Your task to perform on an android device: turn notification dots on Image 0: 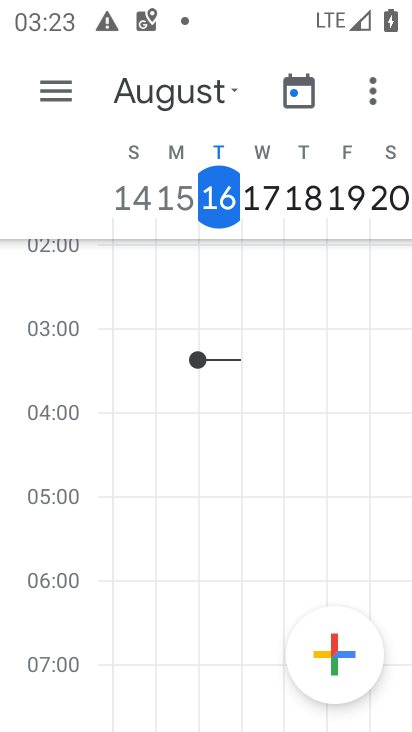
Step 0: press home button
Your task to perform on an android device: turn notification dots on Image 1: 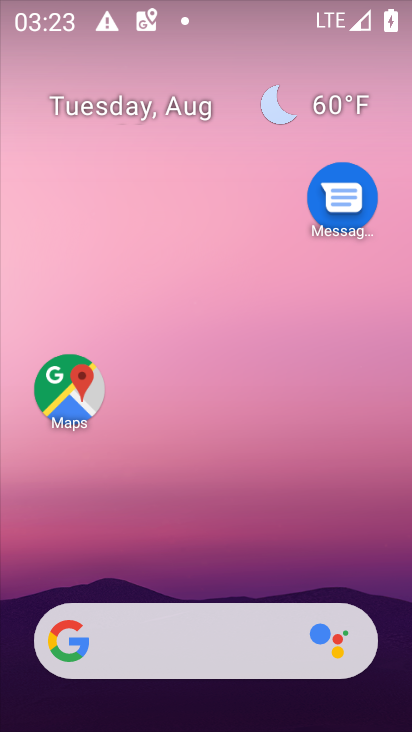
Step 1: click (72, 397)
Your task to perform on an android device: turn notification dots on Image 2: 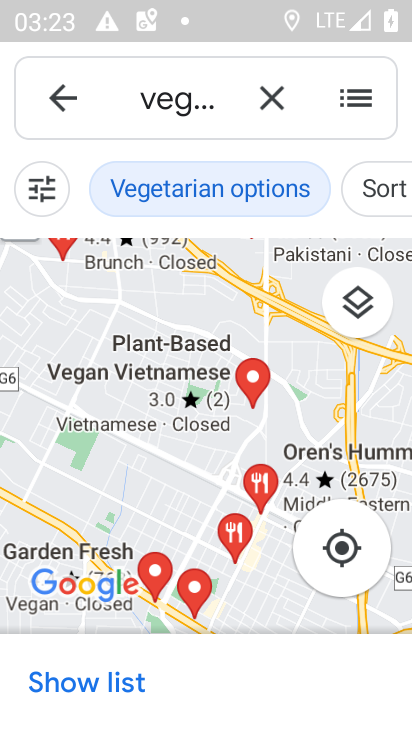
Step 2: press home button
Your task to perform on an android device: turn notification dots on Image 3: 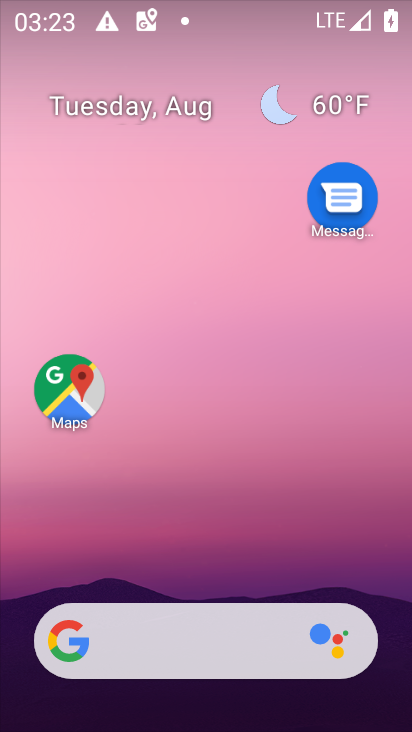
Step 3: drag from (169, 534) to (251, 57)
Your task to perform on an android device: turn notification dots on Image 4: 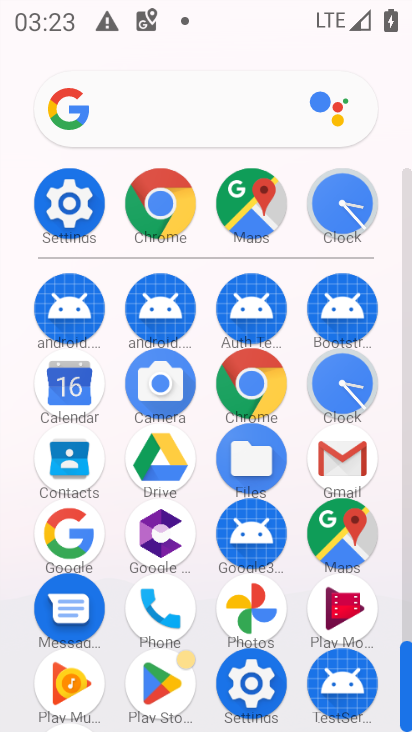
Step 4: click (47, 232)
Your task to perform on an android device: turn notification dots on Image 5: 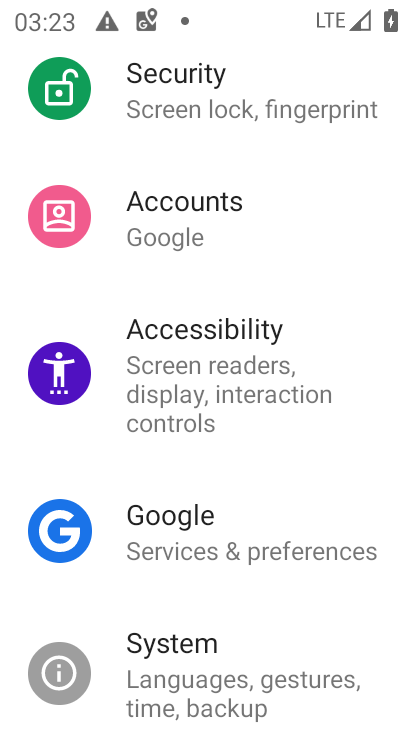
Step 5: drag from (171, 190) to (137, 702)
Your task to perform on an android device: turn notification dots on Image 6: 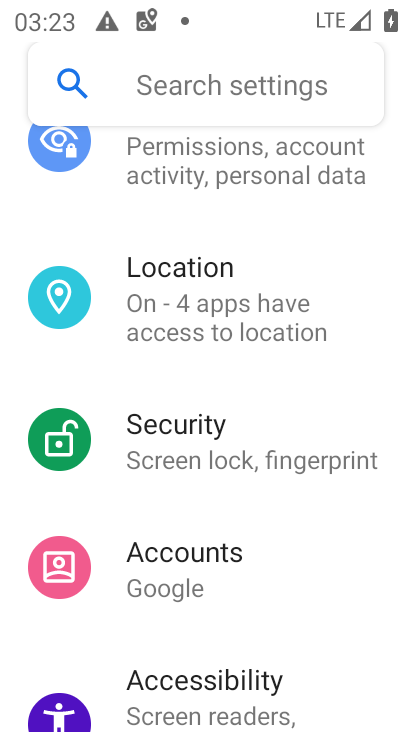
Step 6: click (120, 292)
Your task to perform on an android device: turn notification dots on Image 7: 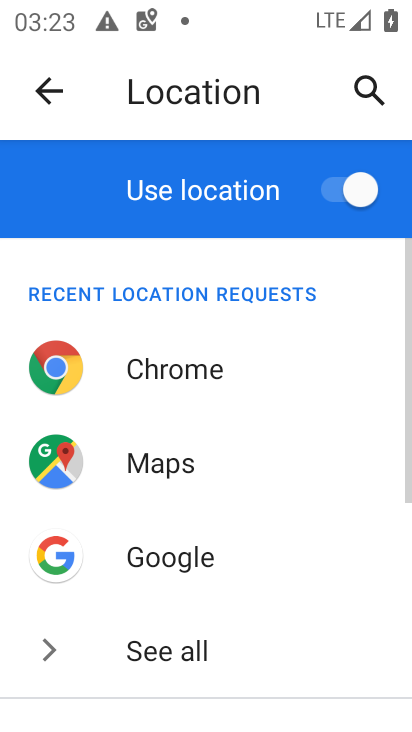
Step 7: task complete